Your task to perform on an android device: uninstall "Google Docs" Image 0: 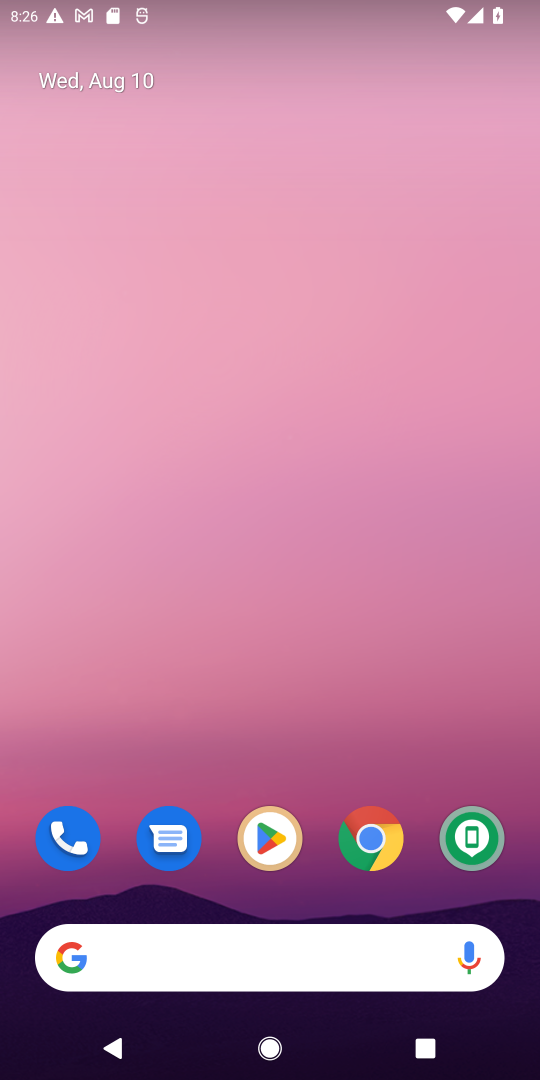
Step 0: click (276, 837)
Your task to perform on an android device: uninstall "Google Docs" Image 1: 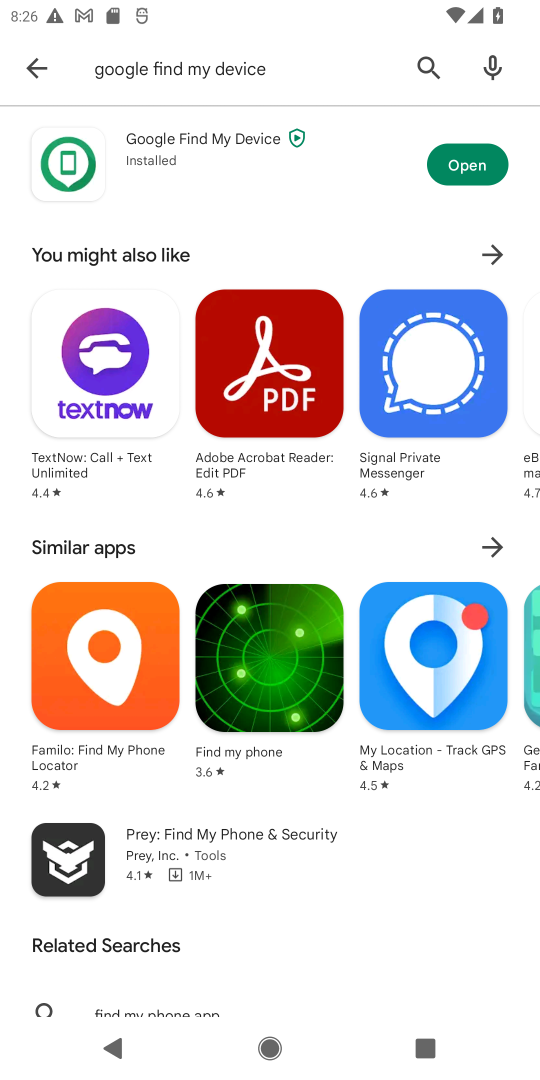
Step 1: click (410, 64)
Your task to perform on an android device: uninstall "Google Docs" Image 2: 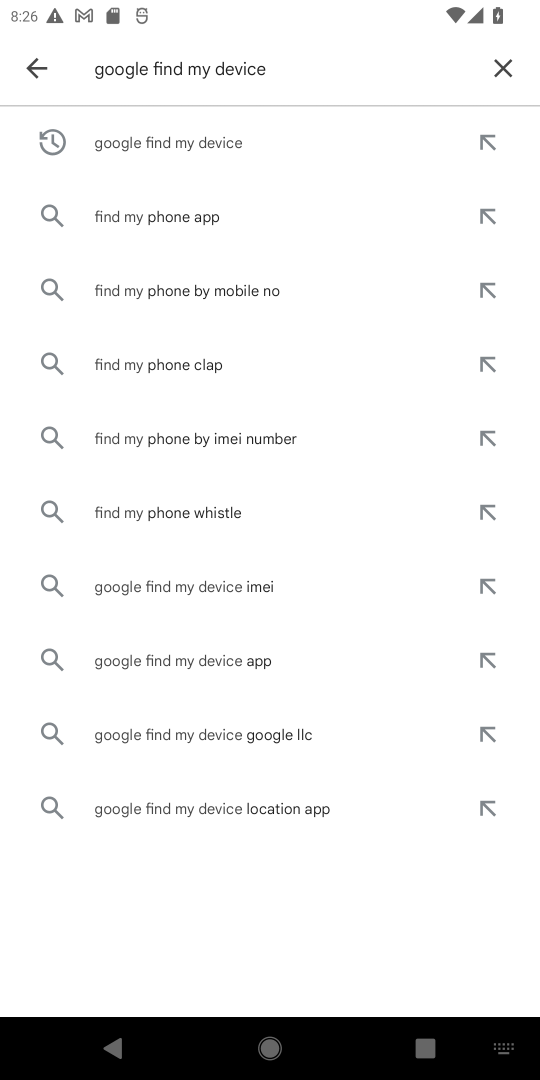
Step 2: click (510, 62)
Your task to perform on an android device: uninstall "Google Docs" Image 3: 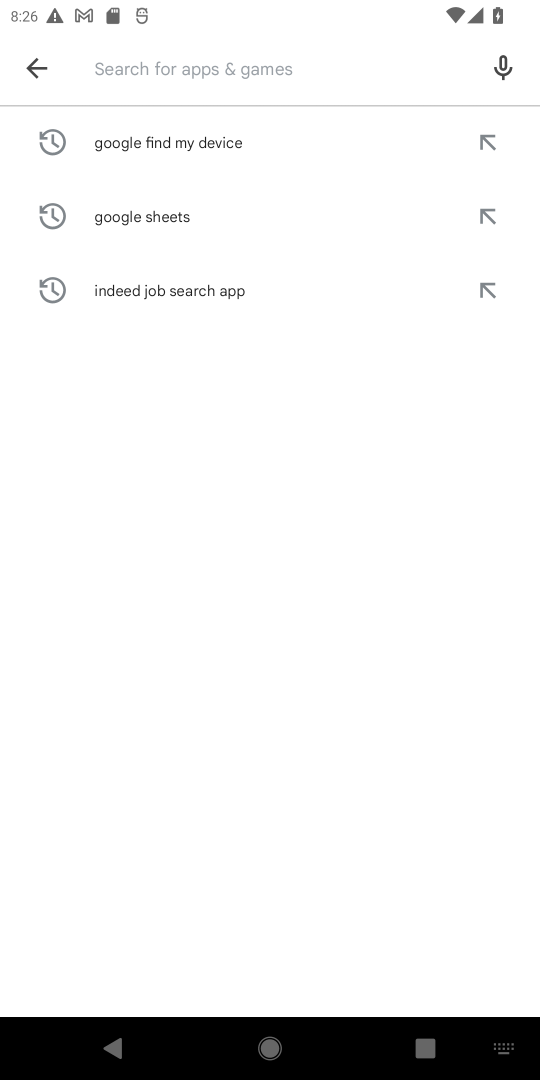
Step 3: type "Google Docs"
Your task to perform on an android device: uninstall "Google Docs" Image 4: 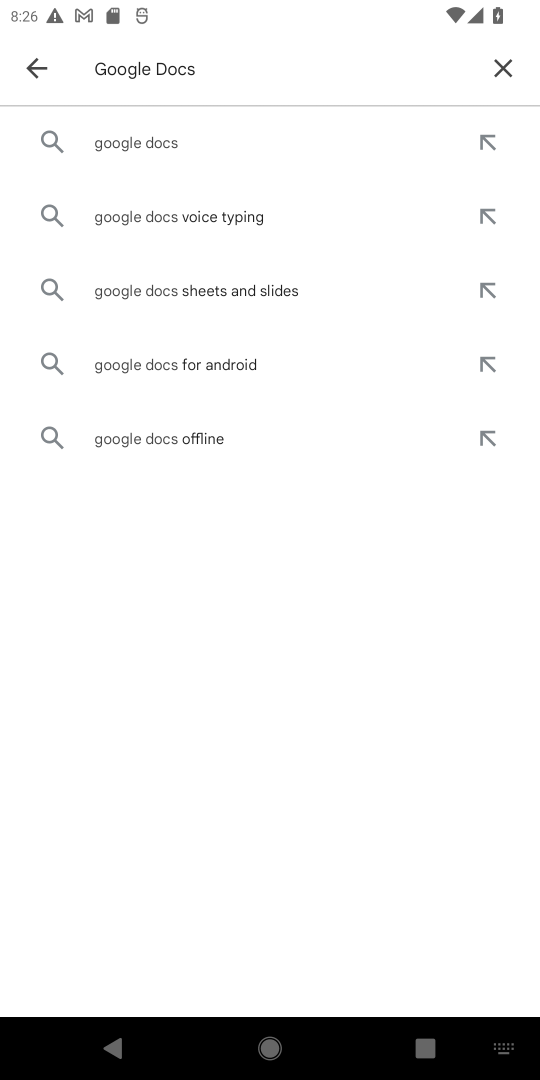
Step 4: click (169, 148)
Your task to perform on an android device: uninstall "Google Docs" Image 5: 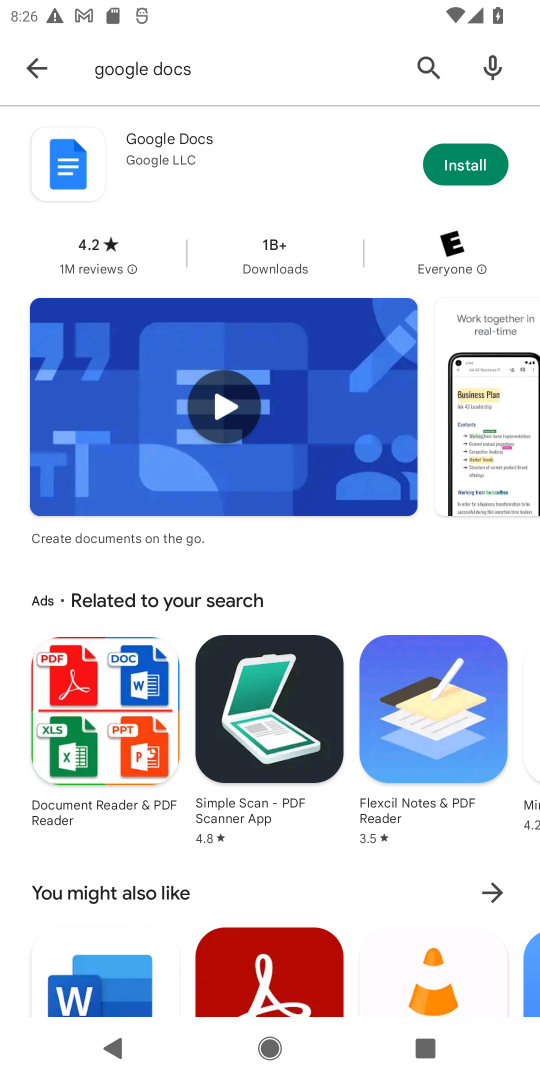
Step 5: task complete